Your task to perform on an android device: Open the map Image 0: 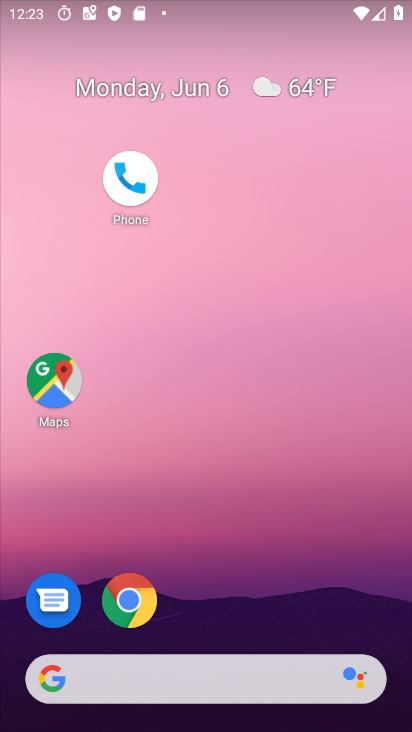
Step 0: click (148, 62)
Your task to perform on an android device: Open the map Image 1: 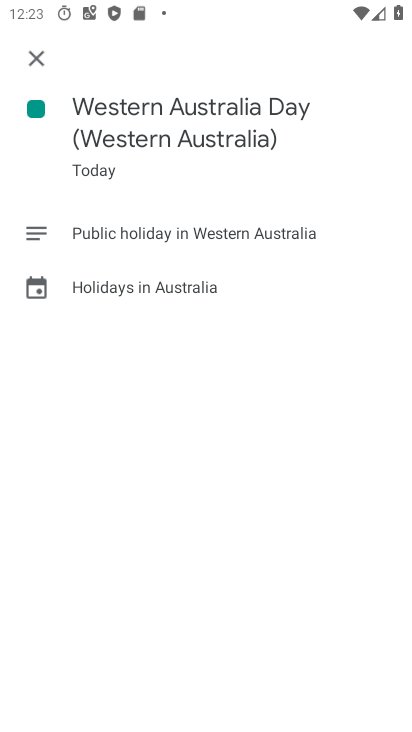
Step 1: click (34, 47)
Your task to perform on an android device: Open the map Image 2: 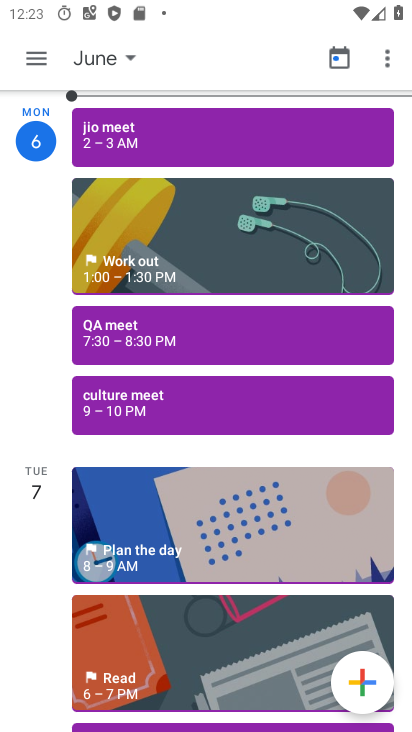
Step 2: press back button
Your task to perform on an android device: Open the map Image 3: 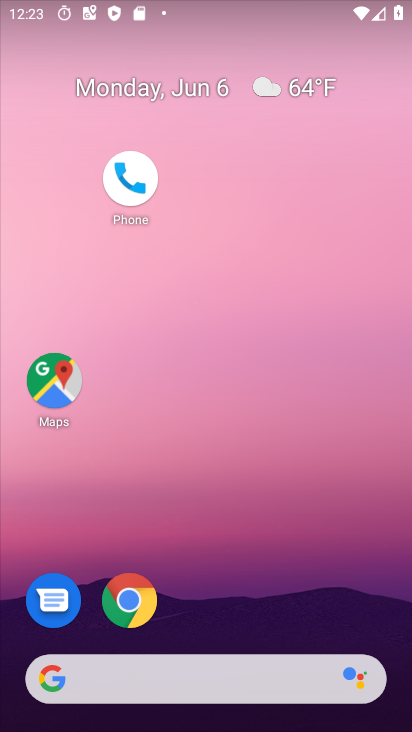
Step 3: drag from (214, 555) to (208, 143)
Your task to perform on an android device: Open the map Image 4: 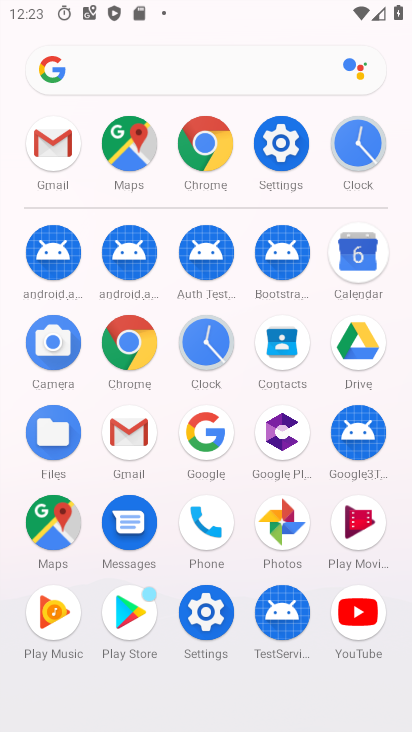
Step 4: click (36, 514)
Your task to perform on an android device: Open the map Image 5: 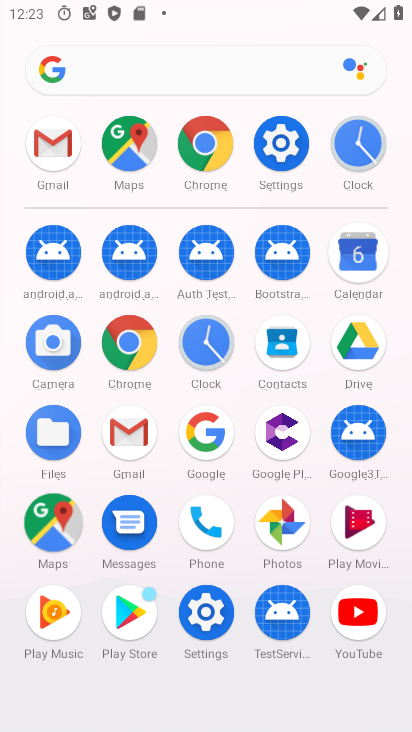
Step 5: click (40, 514)
Your task to perform on an android device: Open the map Image 6: 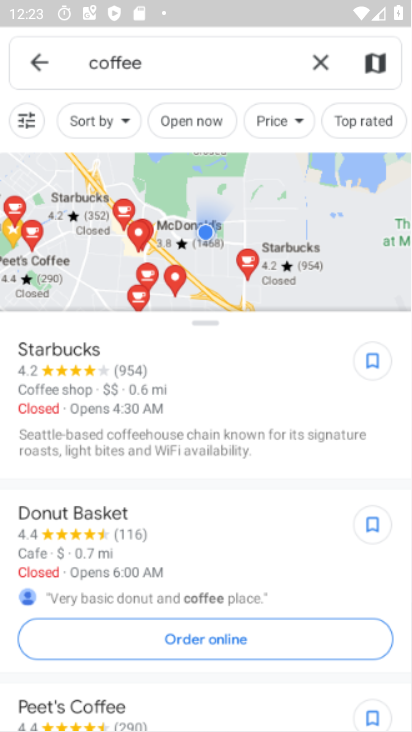
Step 6: click (42, 512)
Your task to perform on an android device: Open the map Image 7: 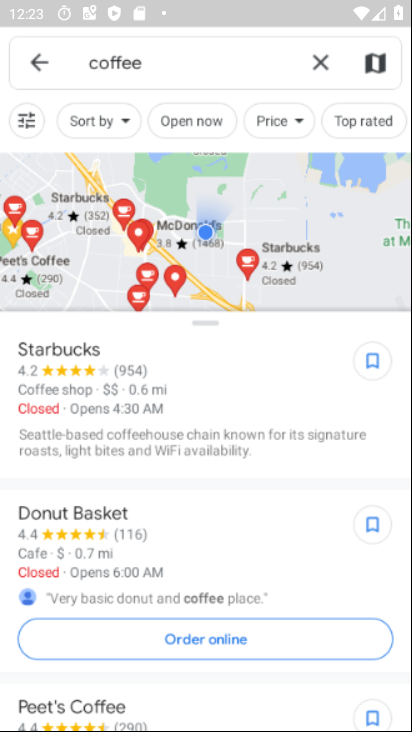
Step 7: click (42, 509)
Your task to perform on an android device: Open the map Image 8: 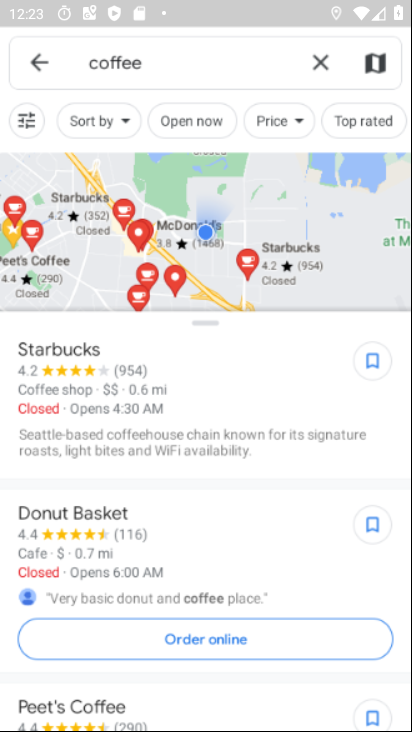
Step 8: task complete